Your task to perform on an android device: toggle wifi Image 0: 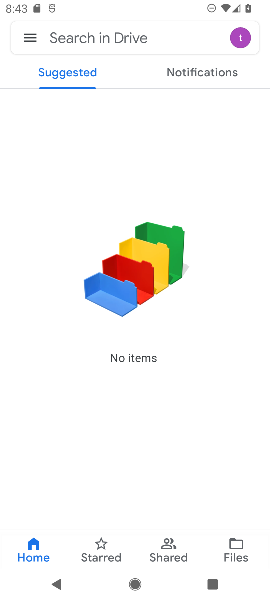
Step 0: press home button
Your task to perform on an android device: toggle wifi Image 1: 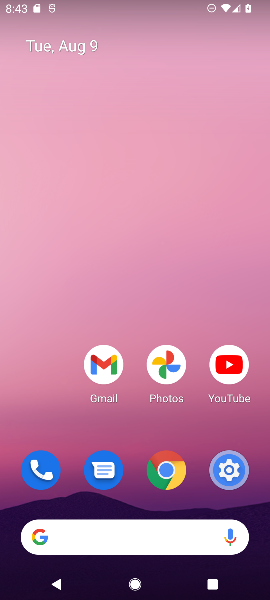
Step 1: click (229, 468)
Your task to perform on an android device: toggle wifi Image 2: 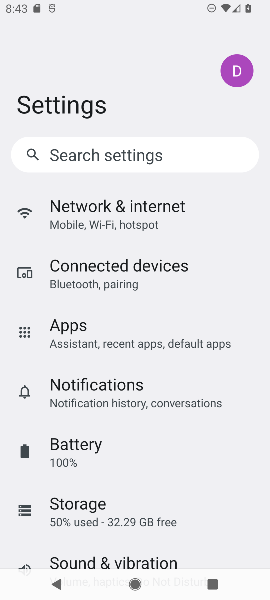
Step 2: click (135, 222)
Your task to perform on an android device: toggle wifi Image 3: 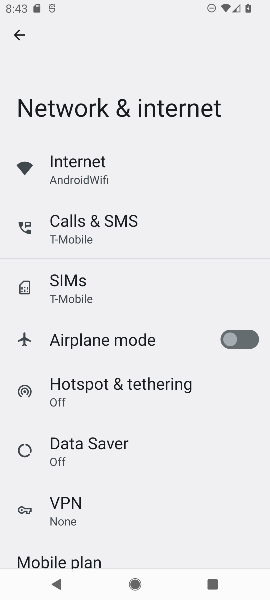
Step 3: click (99, 175)
Your task to perform on an android device: toggle wifi Image 4: 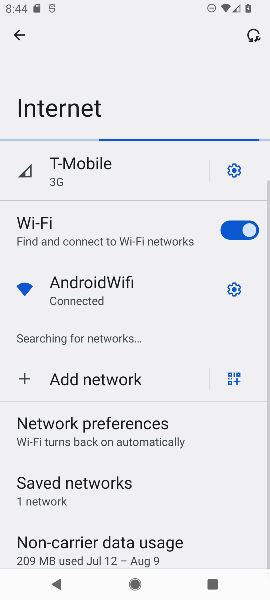
Step 4: click (231, 232)
Your task to perform on an android device: toggle wifi Image 5: 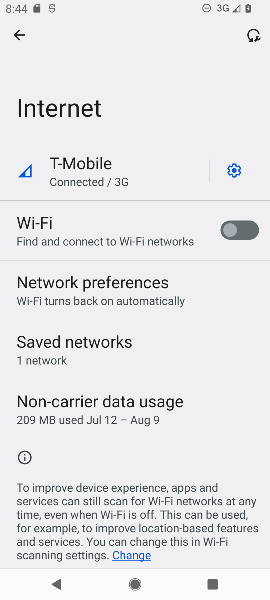
Step 5: task complete